Your task to perform on an android device: open app "Fetch Rewards" (install if not already installed) Image 0: 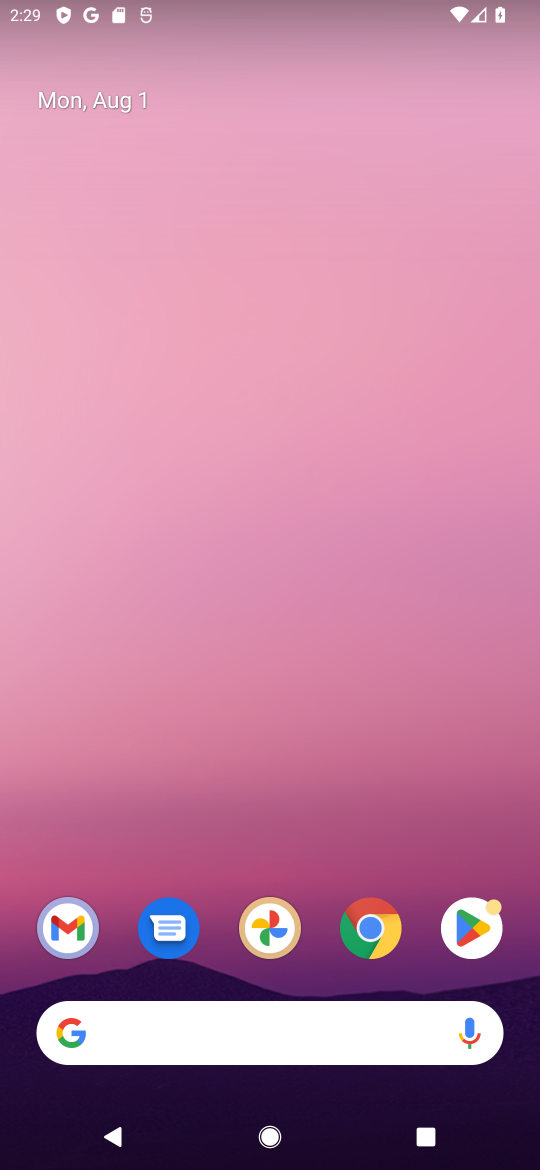
Step 0: press home button
Your task to perform on an android device: open app "Fetch Rewards" (install if not already installed) Image 1: 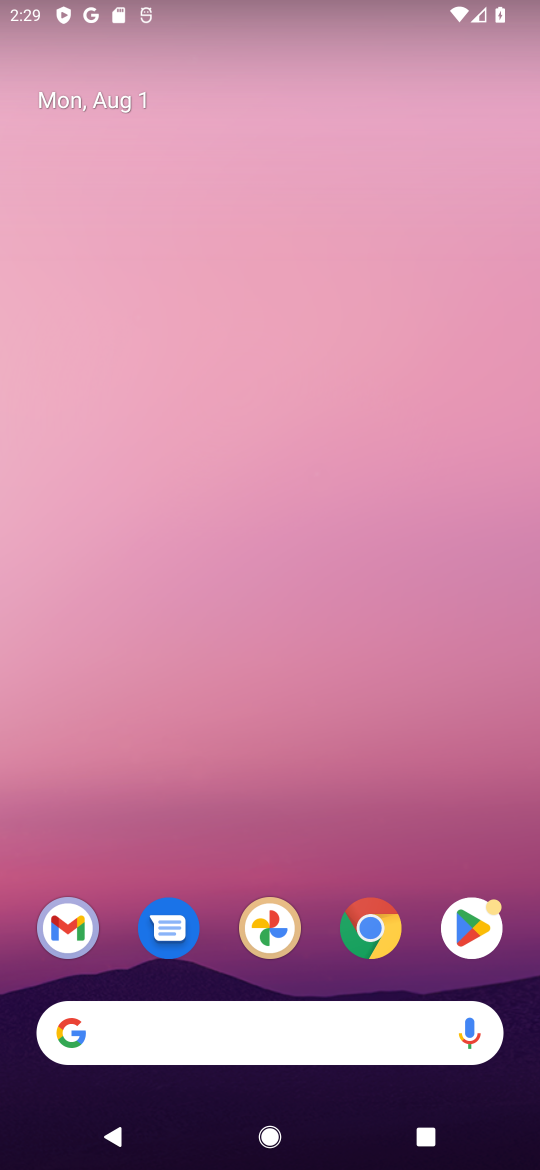
Step 1: click (460, 935)
Your task to perform on an android device: open app "Fetch Rewards" (install if not already installed) Image 2: 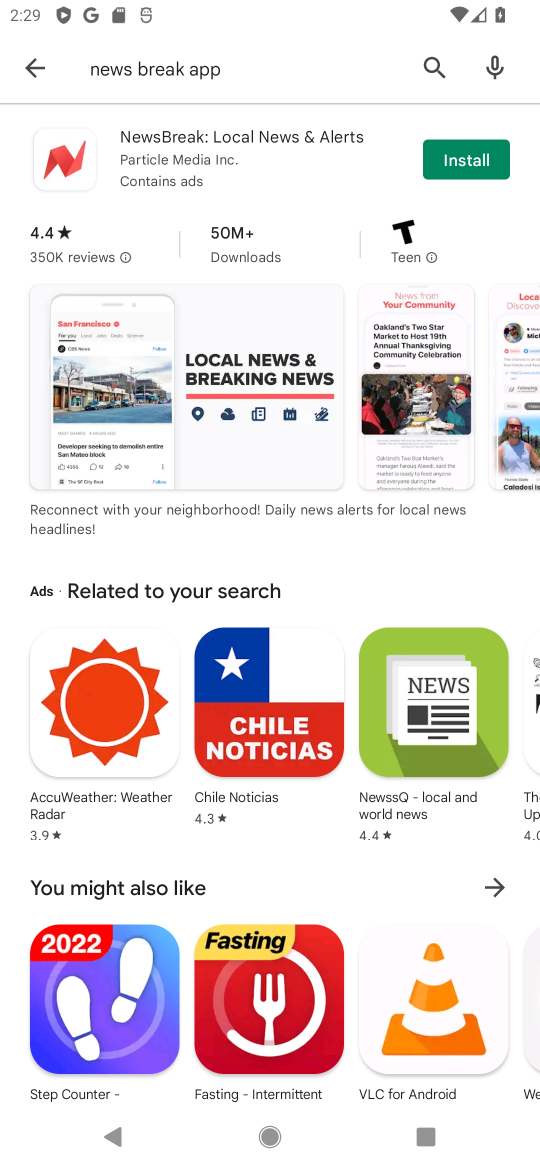
Step 2: click (430, 57)
Your task to perform on an android device: open app "Fetch Rewards" (install if not already installed) Image 3: 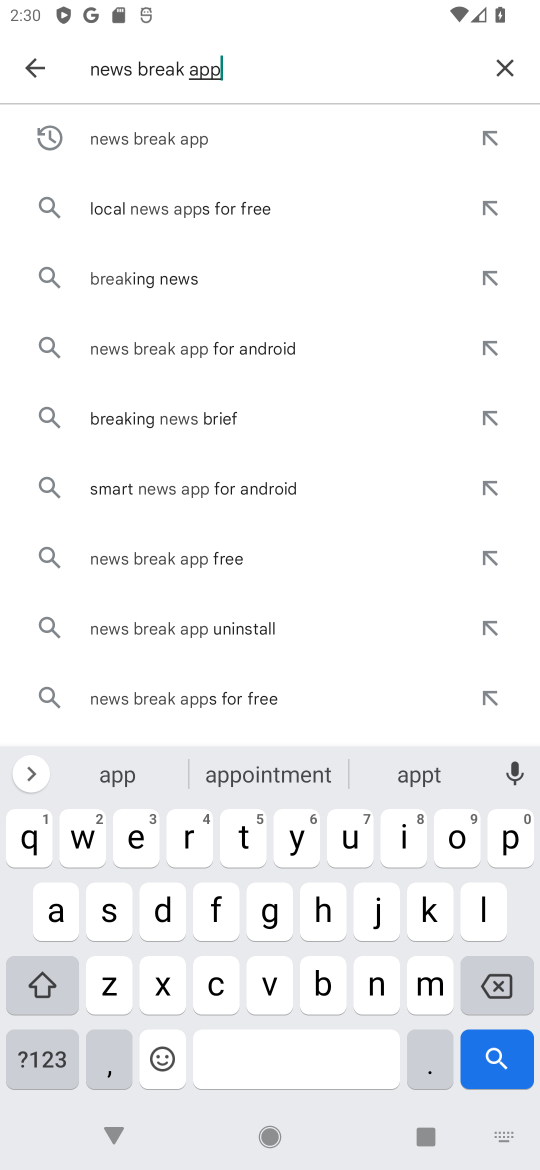
Step 3: click (498, 74)
Your task to perform on an android device: open app "Fetch Rewards" (install if not already installed) Image 4: 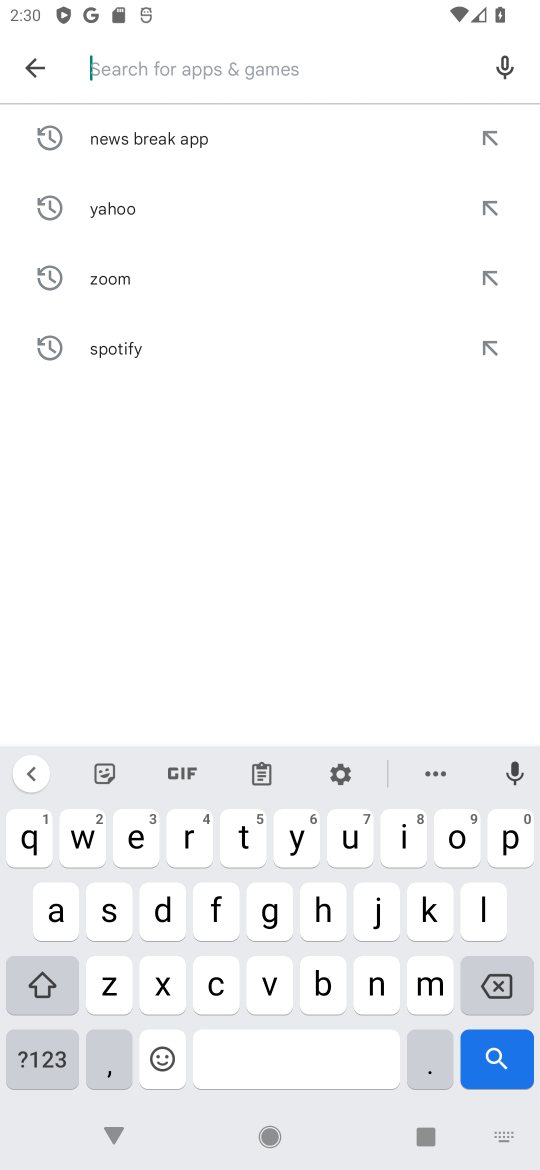
Step 4: click (211, 898)
Your task to perform on an android device: open app "Fetch Rewards" (install if not already installed) Image 5: 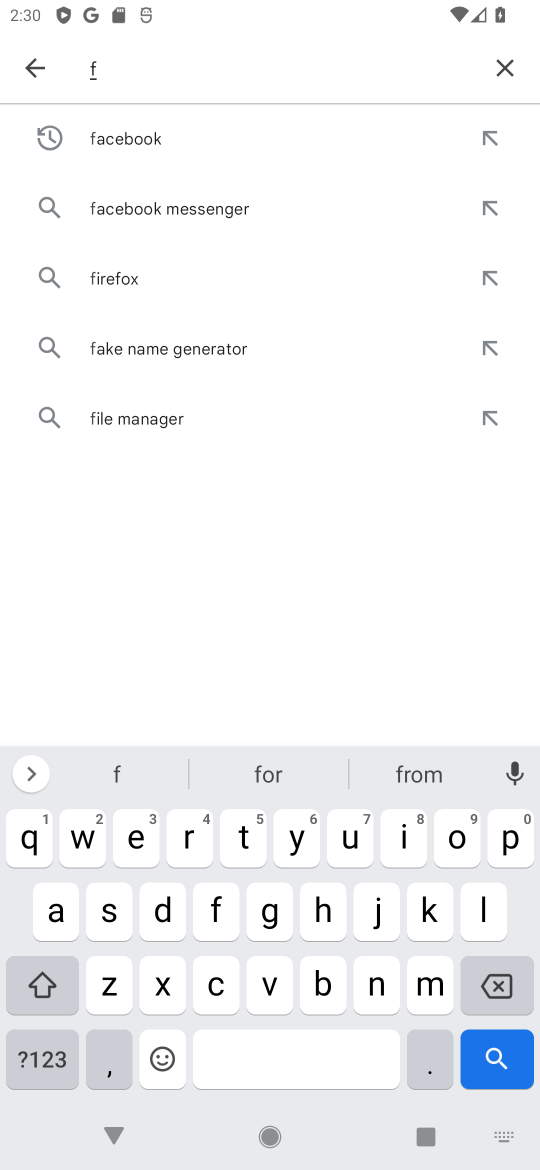
Step 5: click (138, 839)
Your task to perform on an android device: open app "Fetch Rewards" (install if not already installed) Image 6: 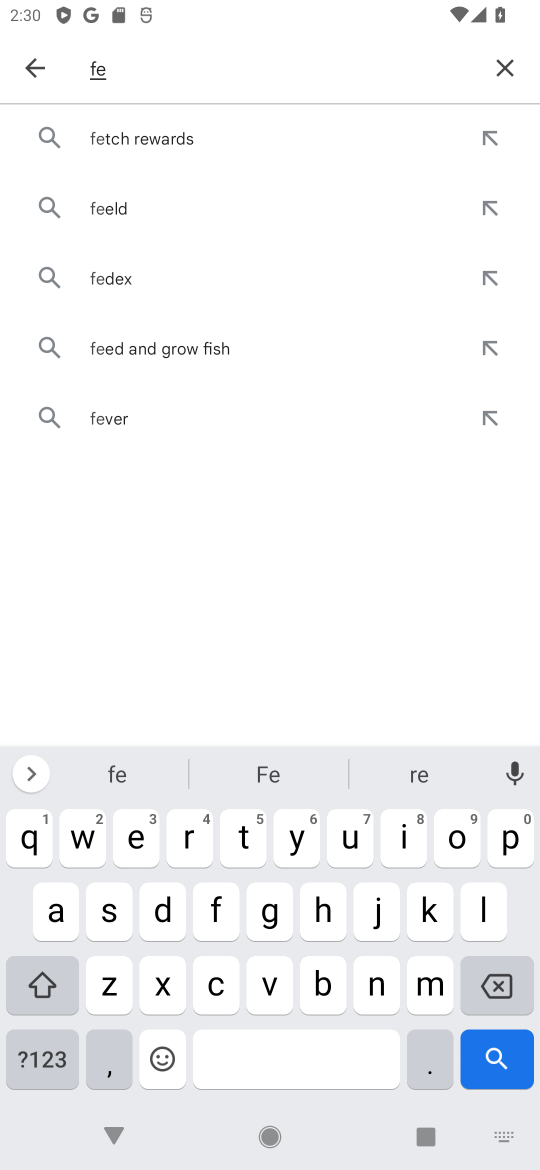
Step 6: click (156, 138)
Your task to perform on an android device: open app "Fetch Rewards" (install if not already installed) Image 7: 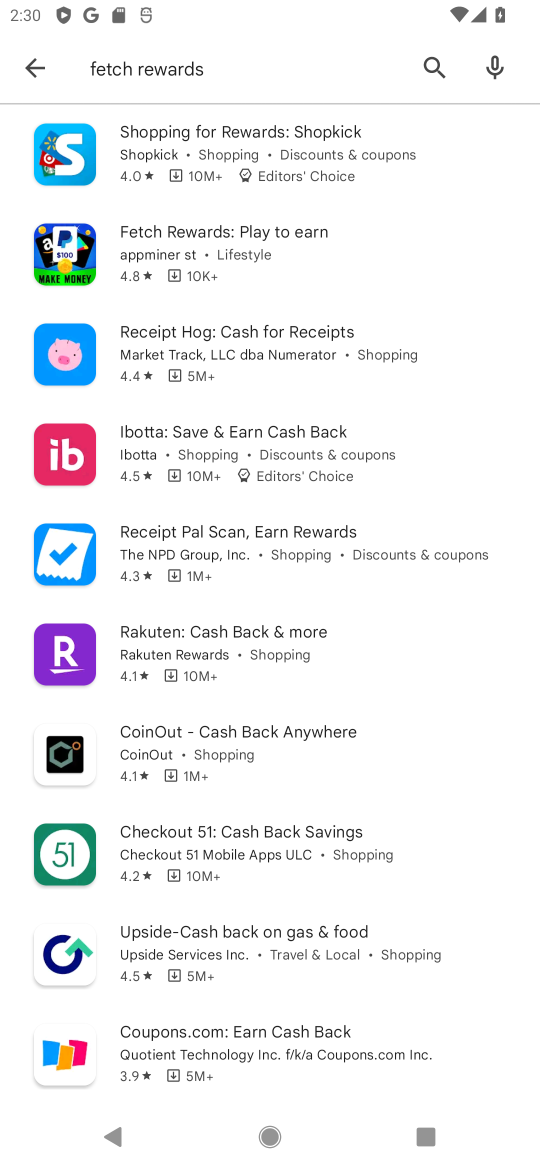
Step 7: click (262, 266)
Your task to perform on an android device: open app "Fetch Rewards" (install if not already installed) Image 8: 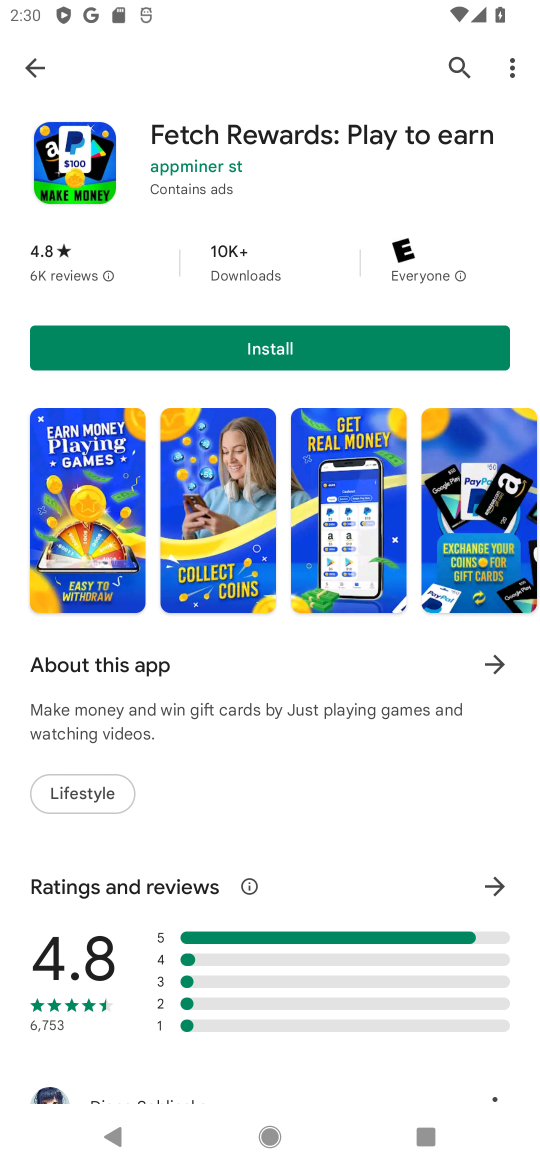
Step 8: click (297, 334)
Your task to perform on an android device: open app "Fetch Rewards" (install if not already installed) Image 9: 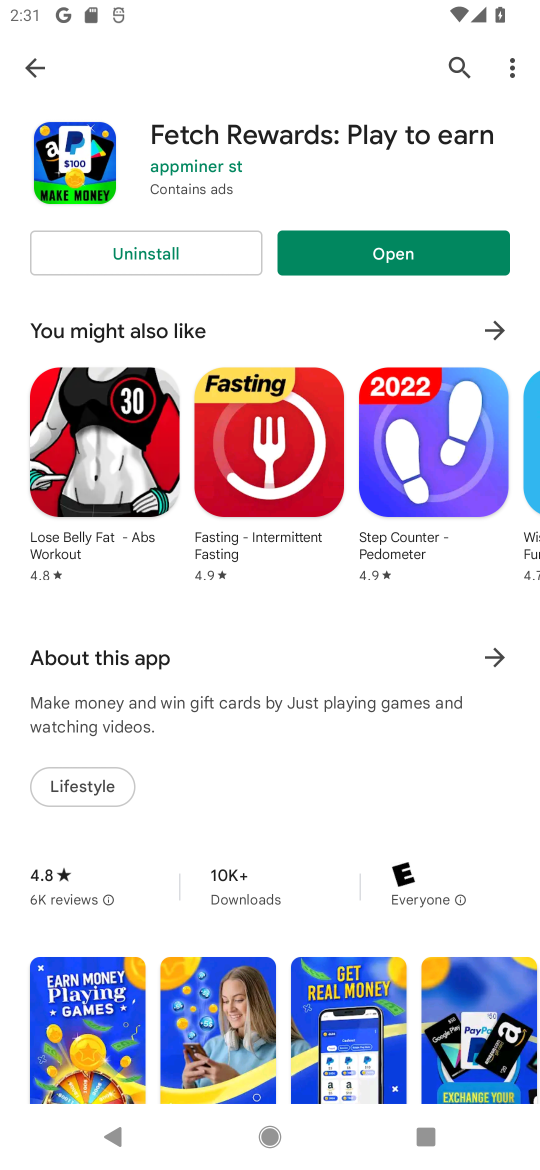
Step 9: click (375, 258)
Your task to perform on an android device: open app "Fetch Rewards" (install if not already installed) Image 10: 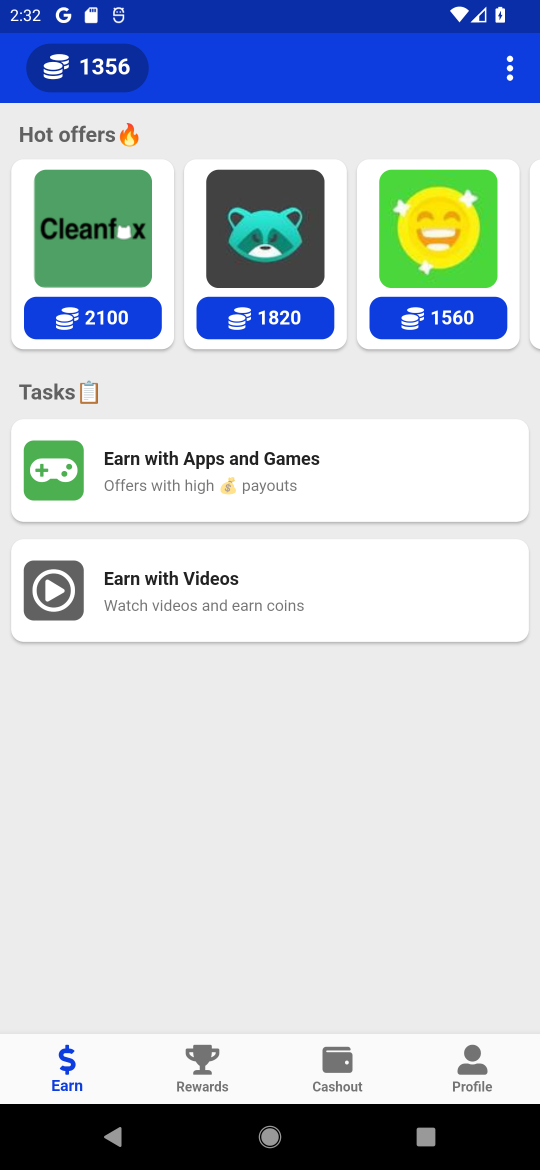
Step 10: task complete